Your task to perform on an android device: Open the web browser Image 0: 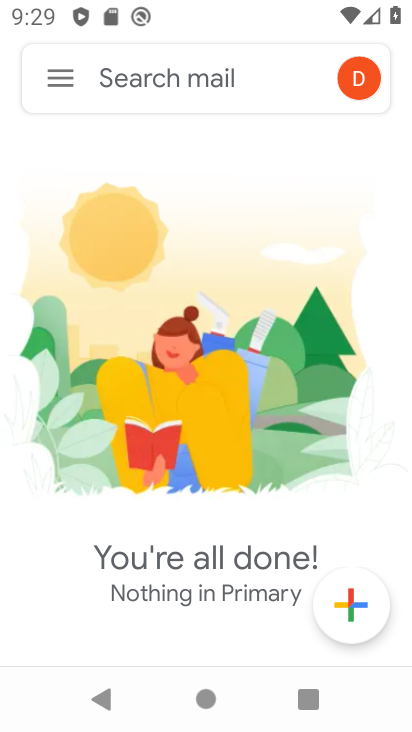
Step 0: press back button
Your task to perform on an android device: Open the web browser Image 1: 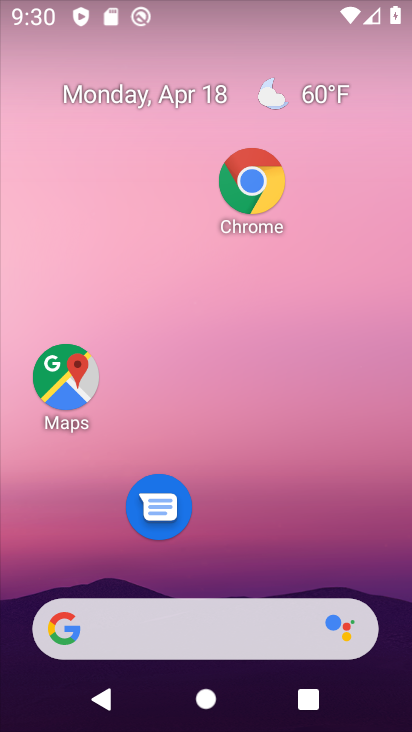
Step 1: click (242, 204)
Your task to perform on an android device: Open the web browser Image 2: 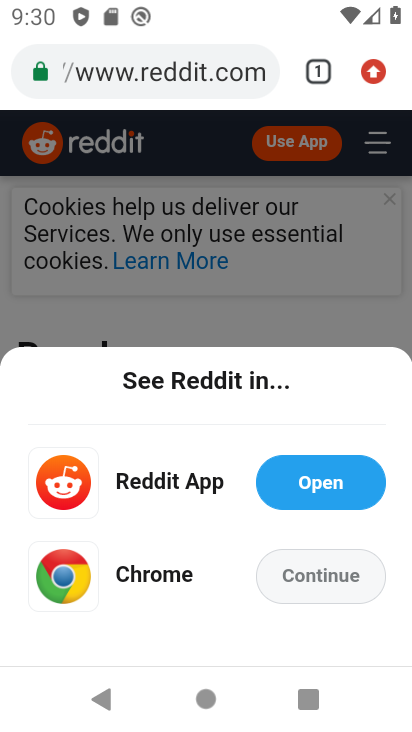
Step 2: task complete